Your task to perform on an android device: find which apps use the phone's location Image 0: 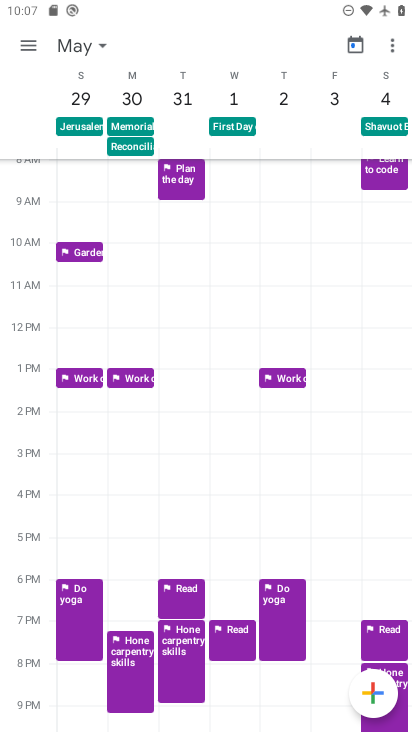
Step 0: press home button
Your task to perform on an android device: find which apps use the phone's location Image 1: 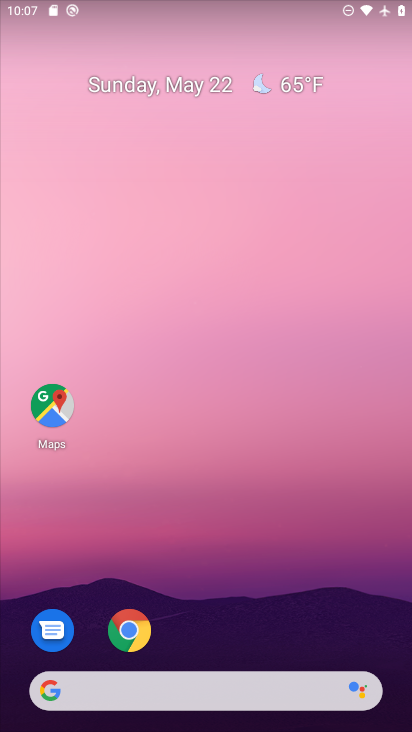
Step 1: drag from (166, 692) to (317, 93)
Your task to perform on an android device: find which apps use the phone's location Image 2: 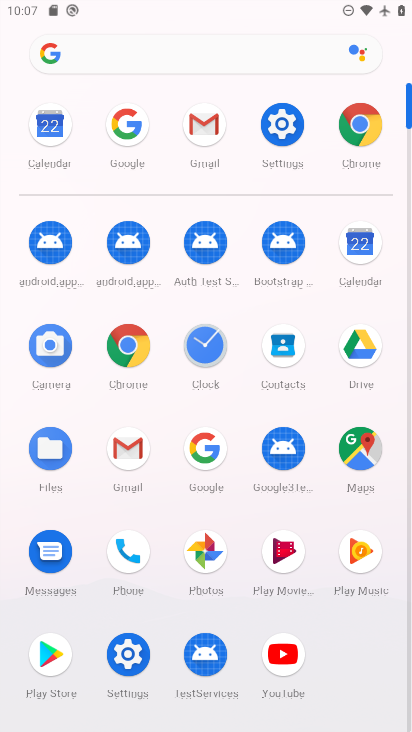
Step 2: click (285, 137)
Your task to perform on an android device: find which apps use the phone's location Image 3: 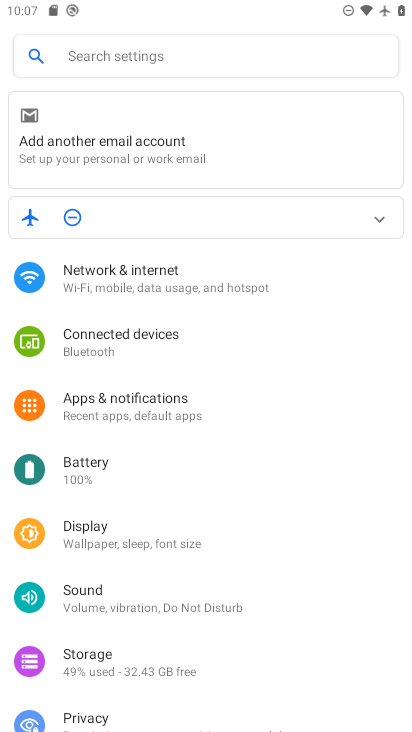
Step 3: drag from (213, 667) to (296, 248)
Your task to perform on an android device: find which apps use the phone's location Image 4: 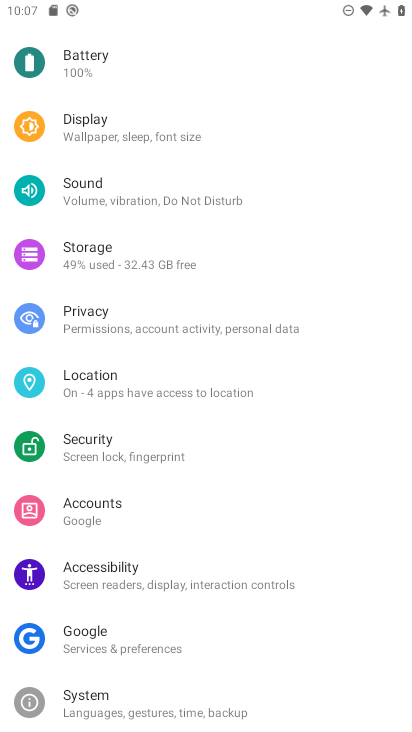
Step 4: click (134, 386)
Your task to perform on an android device: find which apps use the phone's location Image 5: 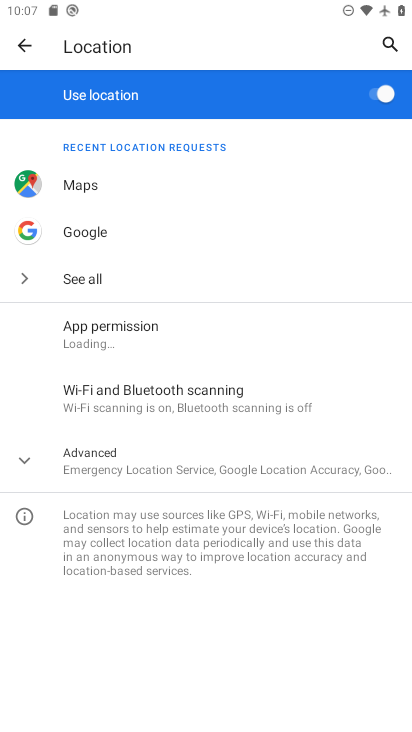
Step 5: click (104, 333)
Your task to perform on an android device: find which apps use the phone's location Image 6: 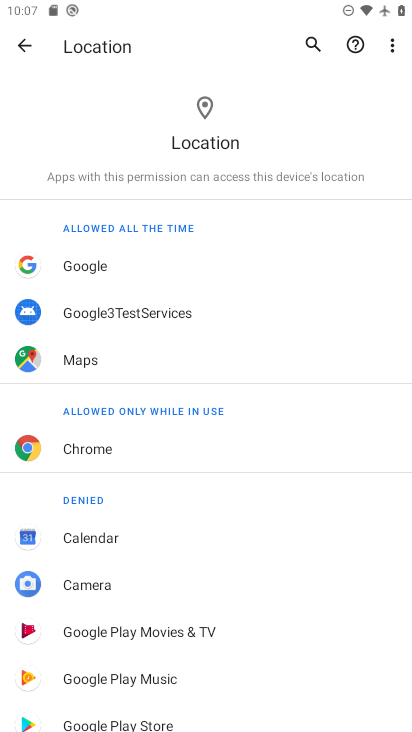
Step 6: drag from (231, 679) to (370, 187)
Your task to perform on an android device: find which apps use the phone's location Image 7: 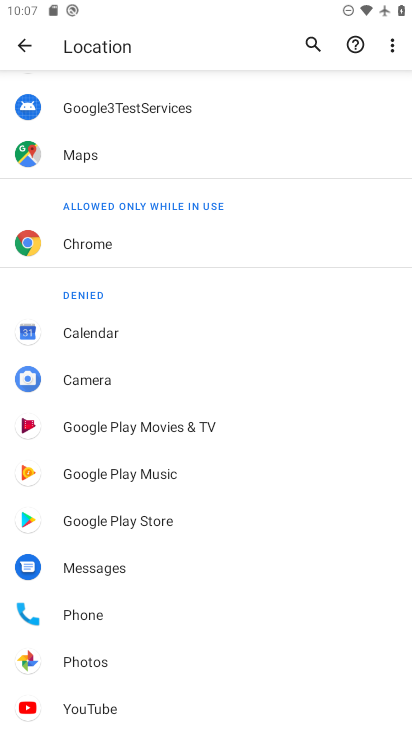
Step 7: click (96, 617)
Your task to perform on an android device: find which apps use the phone's location Image 8: 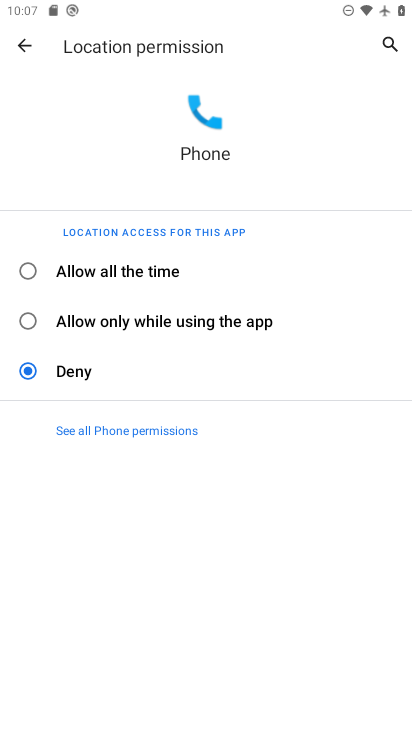
Step 8: task complete